Your task to perform on an android device: turn on location history Image 0: 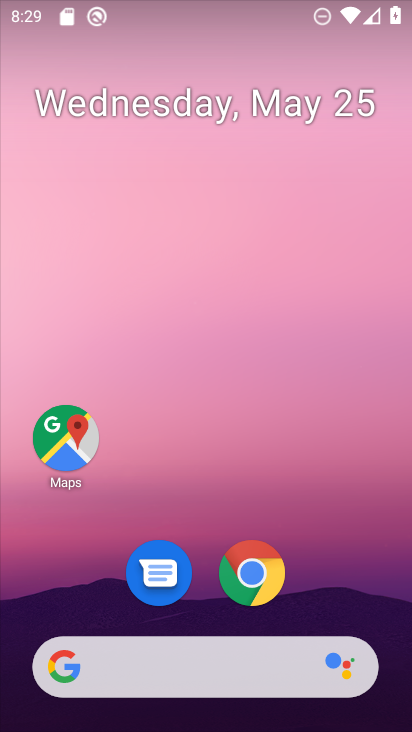
Step 0: drag from (395, 616) to (409, 211)
Your task to perform on an android device: turn on location history Image 1: 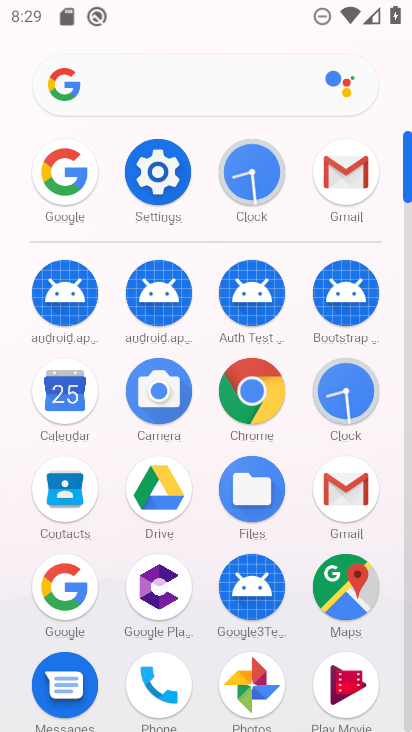
Step 1: click (149, 178)
Your task to perform on an android device: turn on location history Image 2: 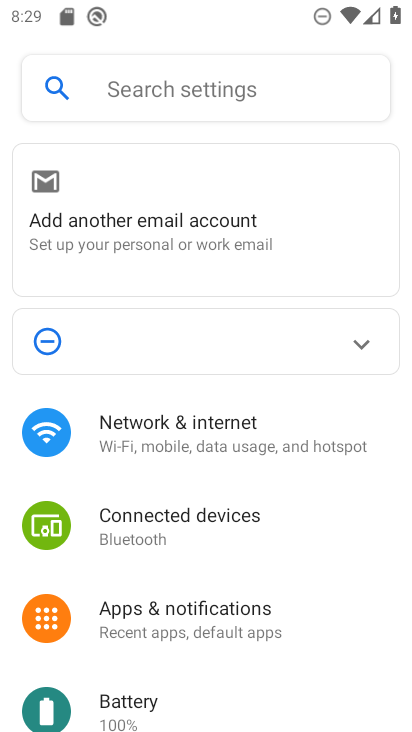
Step 2: drag from (293, 701) to (299, 382)
Your task to perform on an android device: turn on location history Image 3: 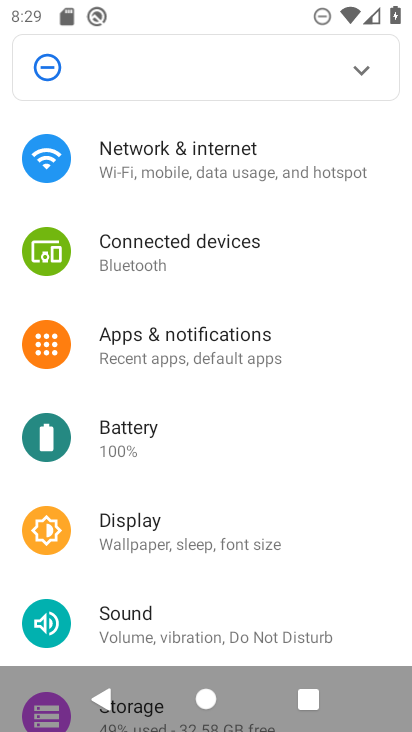
Step 3: drag from (346, 640) to (338, 359)
Your task to perform on an android device: turn on location history Image 4: 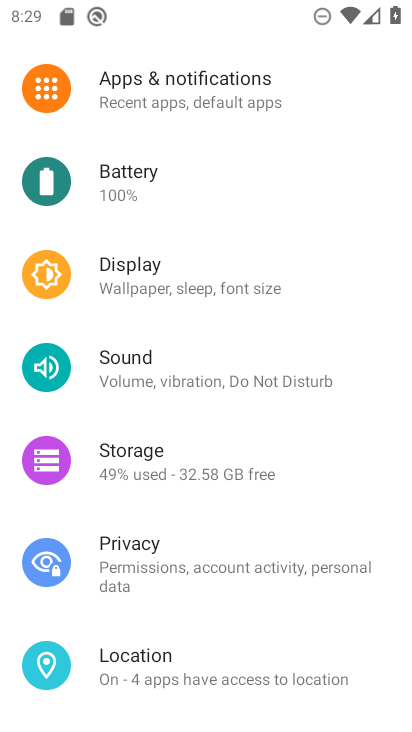
Step 4: click (162, 662)
Your task to perform on an android device: turn on location history Image 5: 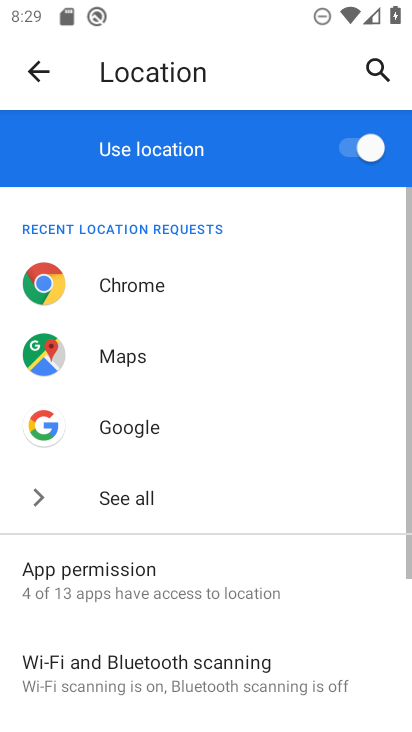
Step 5: drag from (297, 651) to (297, 388)
Your task to perform on an android device: turn on location history Image 6: 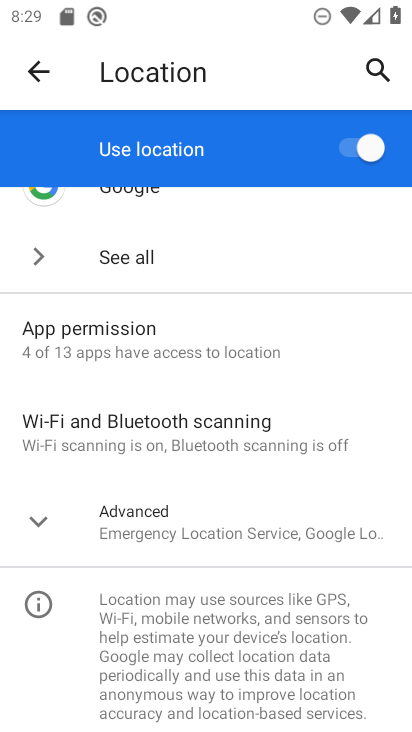
Step 6: click (45, 517)
Your task to perform on an android device: turn on location history Image 7: 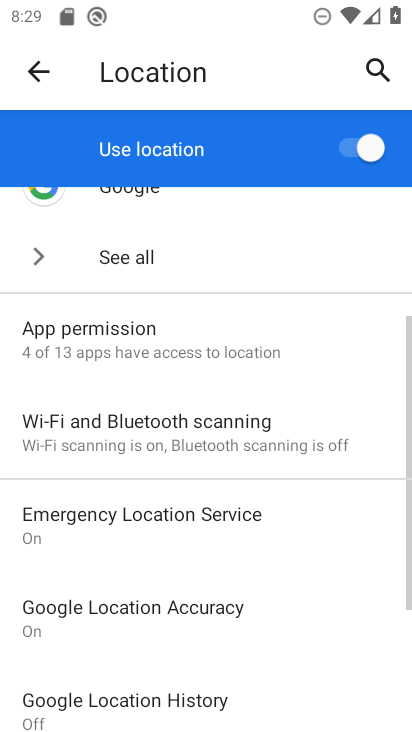
Step 7: drag from (333, 702) to (319, 412)
Your task to perform on an android device: turn on location history Image 8: 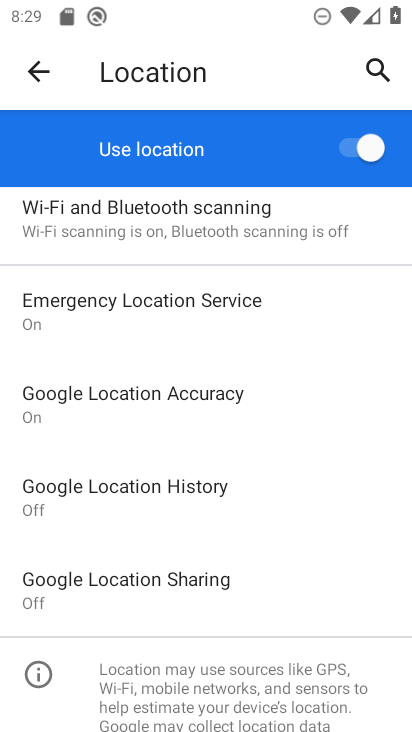
Step 8: click (88, 501)
Your task to perform on an android device: turn on location history Image 9: 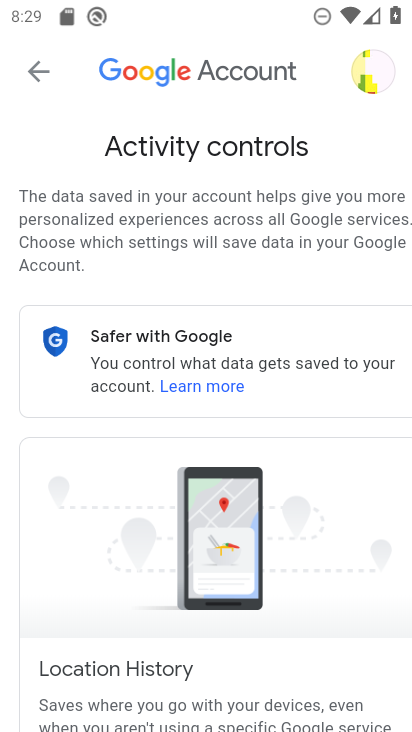
Step 9: drag from (316, 634) to (328, 194)
Your task to perform on an android device: turn on location history Image 10: 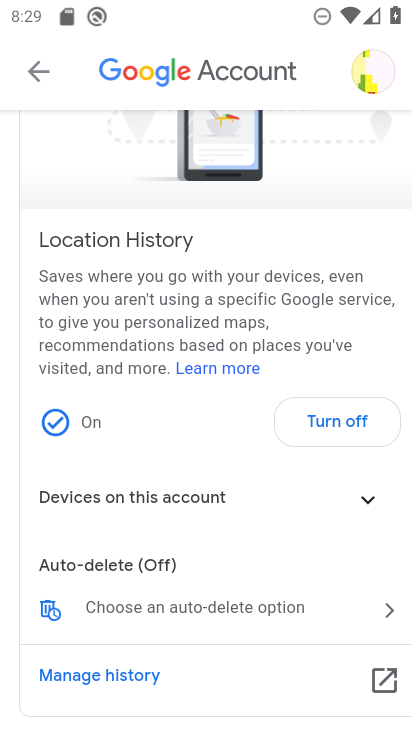
Step 10: click (341, 416)
Your task to perform on an android device: turn on location history Image 11: 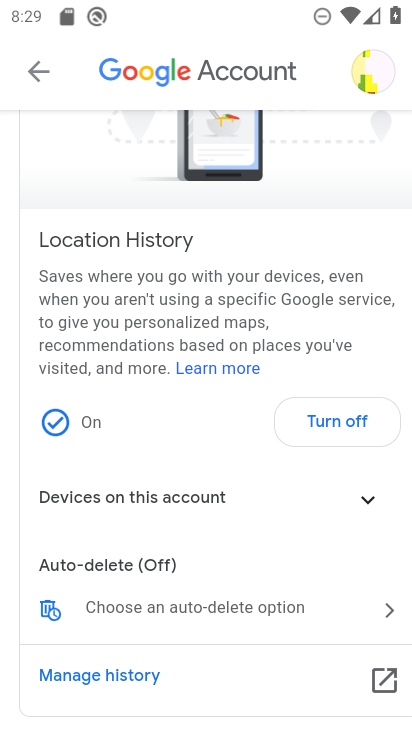
Step 11: click (341, 416)
Your task to perform on an android device: turn on location history Image 12: 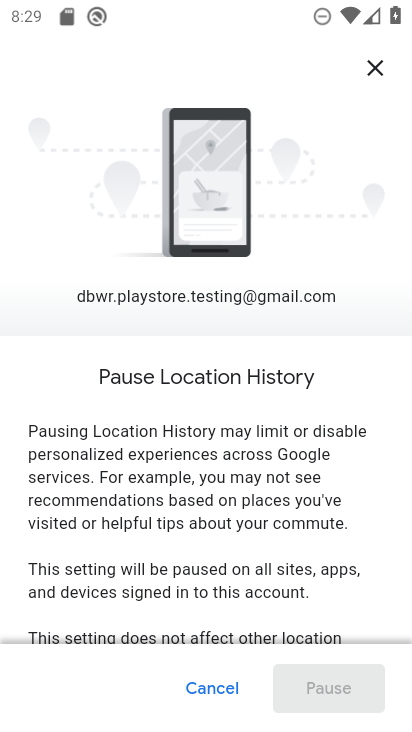
Step 12: drag from (246, 627) to (277, 274)
Your task to perform on an android device: turn on location history Image 13: 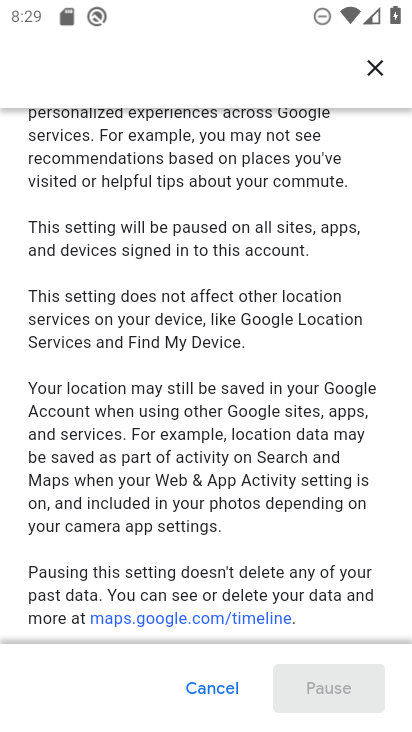
Step 13: drag from (271, 549) to (281, 368)
Your task to perform on an android device: turn on location history Image 14: 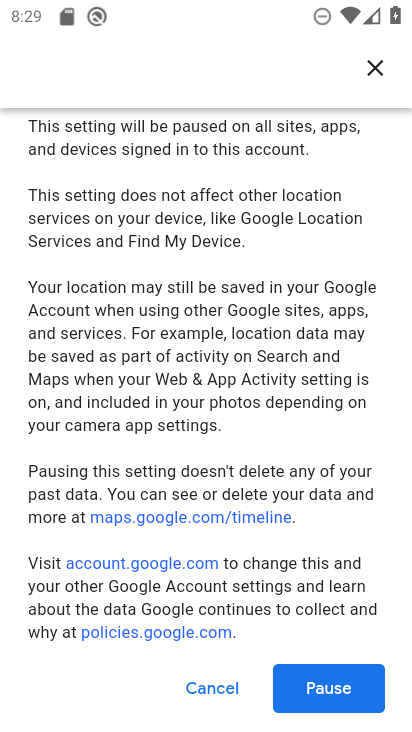
Step 14: click (320, 687)
Your task to perform on an android device: turn on location history Image 15: 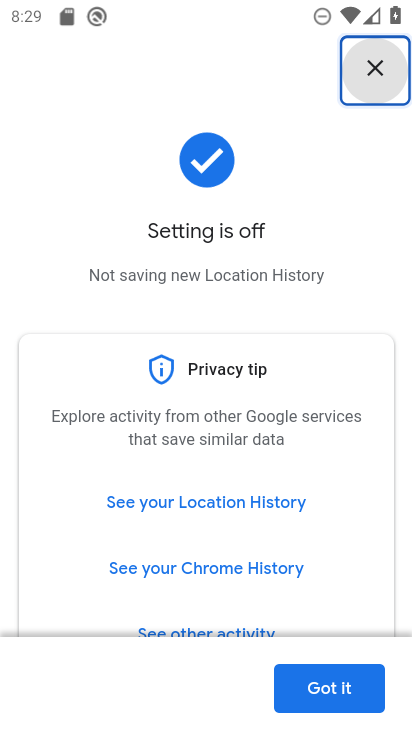
Step 15: click (319, 684)
Your task to perform on an android device: turn on location history Image 16: 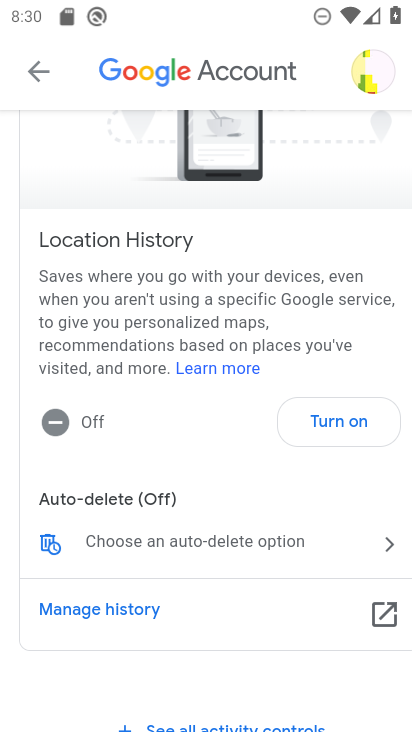
Step 16: click (42, 78)
Your task to perform on an android device: turn on location history Image 17: 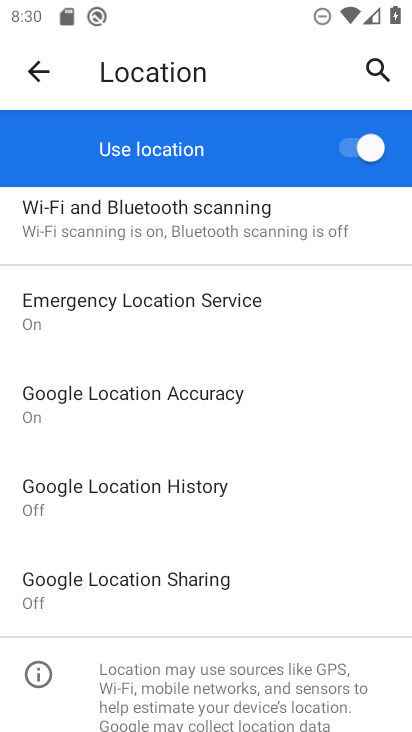
Step 17: click (97, 494)
Your task to perform on an android device: turn on location history Image 18: 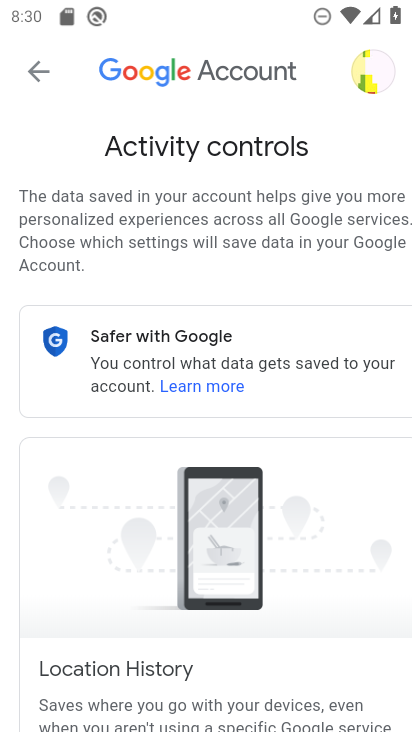
Step 18: drag from (302, 645) to (302, 238)
Your task to perform on an android device: turn on location history Image 19: 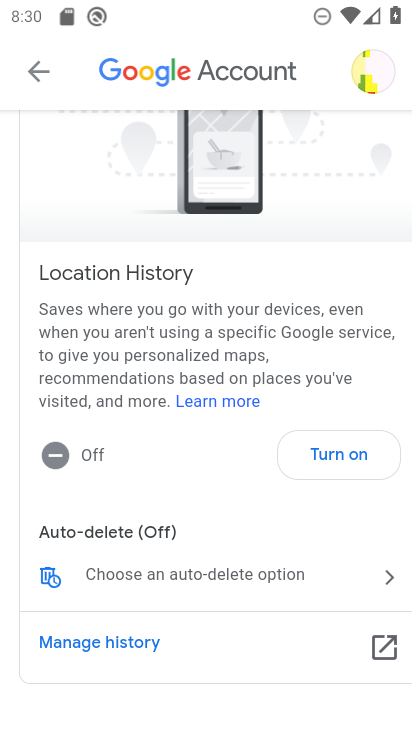
Step 19: click (348, 443)
Your task to perform on an android device: turn on location history Image 20: 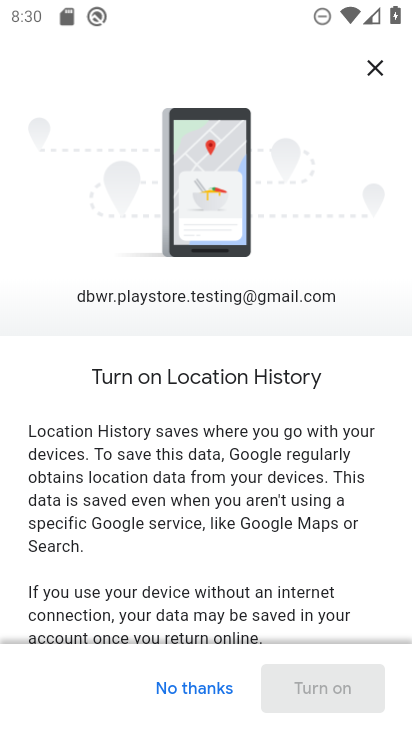
Step 20: drag from (212, 609) to (258, 284)
Your task to perform on an android device: turn on location history Image 21: 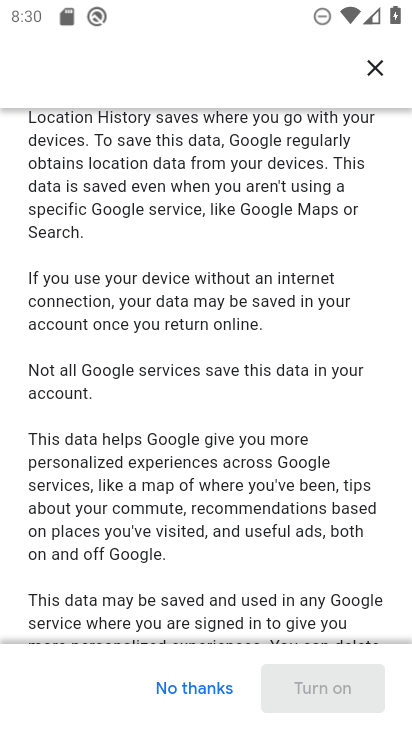
Step 21: drag from (260, 600) to (271, 271)
Your task to perform on an android device: turn on location history Image 22: 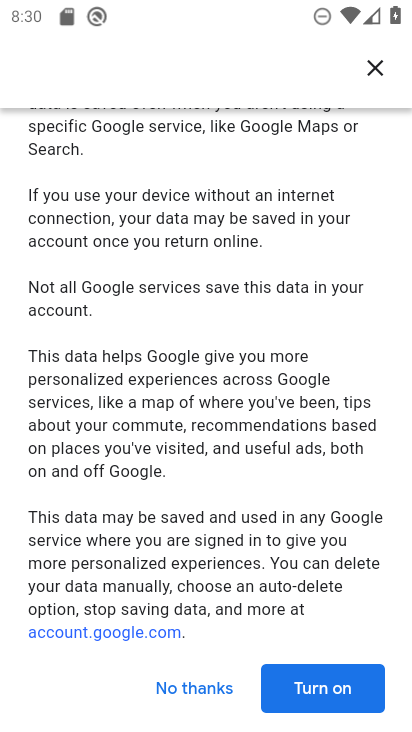
Step 22: click (307, 696)
Your task to perform on an android device: turn on location history Image 23: 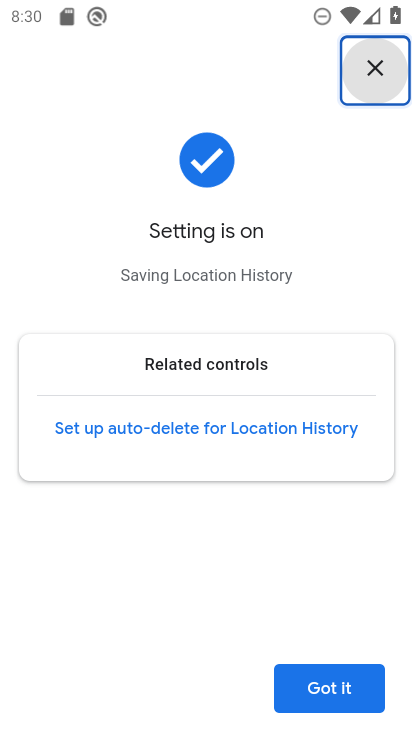
Step 23: click (307, 696)
Your task to perform on an android device: turn on location history Image 24: 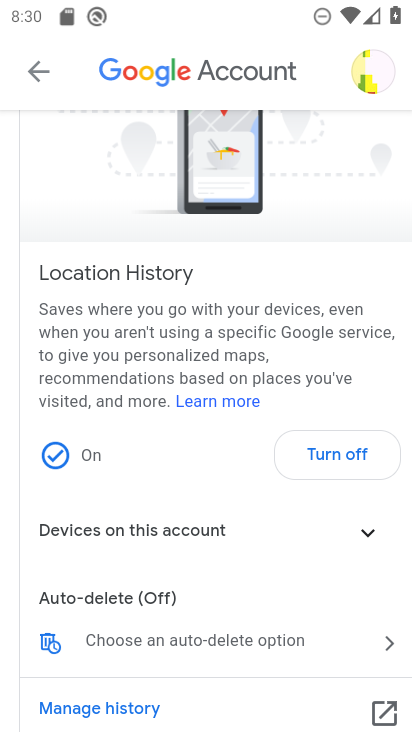
Step 24: click (33, 82)
Your task to perform on an android device: turn on location history Image 25: 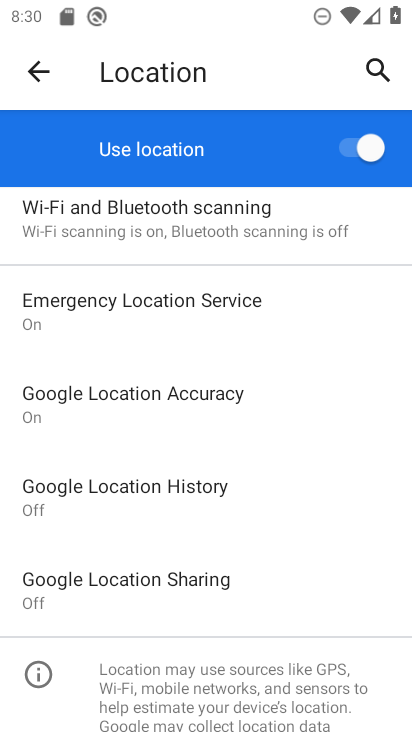
Step 25: task complete